Your task to perform on an android device: Is it going to rain today? Image 0: 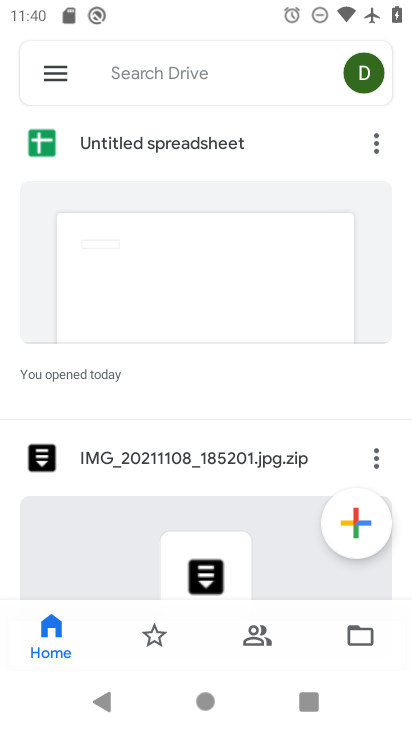
Step 0: press home button
Your task to perform on an android device: Is it going to rain today? Image 1: 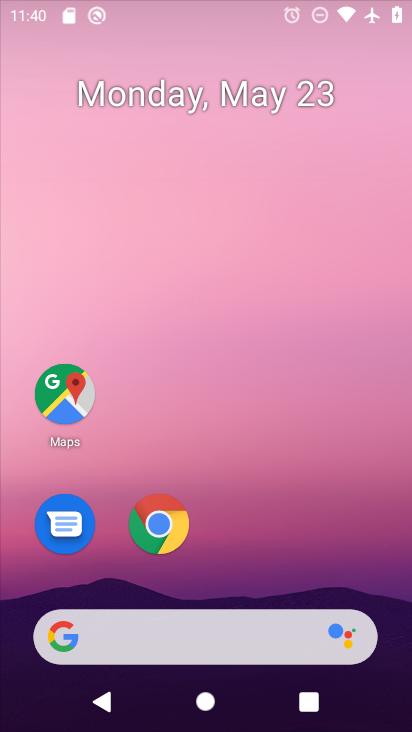
Step 1: drag from (214, 567) to (214, 142)
Your task to perform on an android device: Is it going to rain today? Image 2: 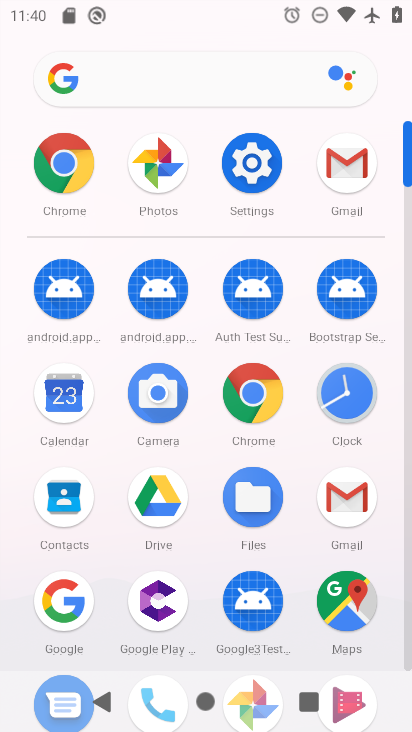
Step 2: click (68, 614)
Your task to perform on an android device: Is it going to rain today? Image 3: 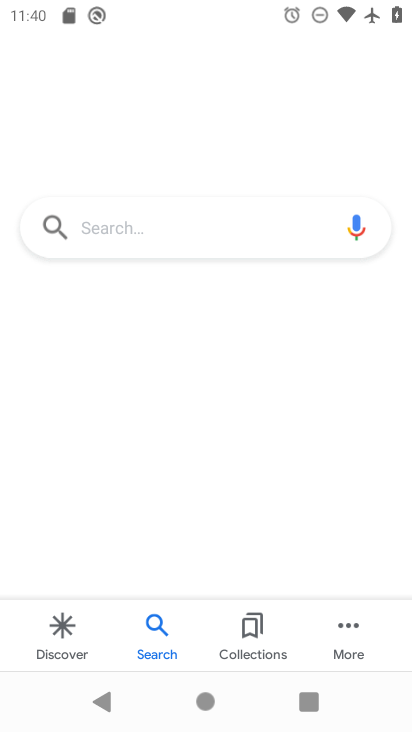
Step 3: click (162, 221)
Your task to perform on an android device: Is it going to rain today? Image 4: 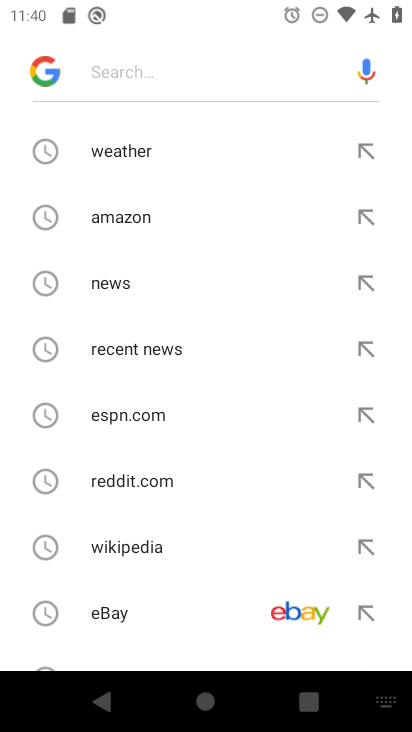
Step 4: click (113, 154)
Your task to perform on an android device: Is it going to rain today? Image 5: 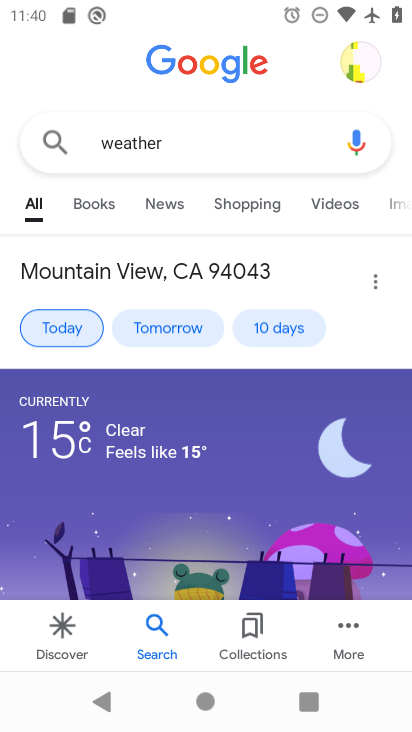
Step 5: task complete